Your task to perform on an android device: What's the weather today? Image 0: 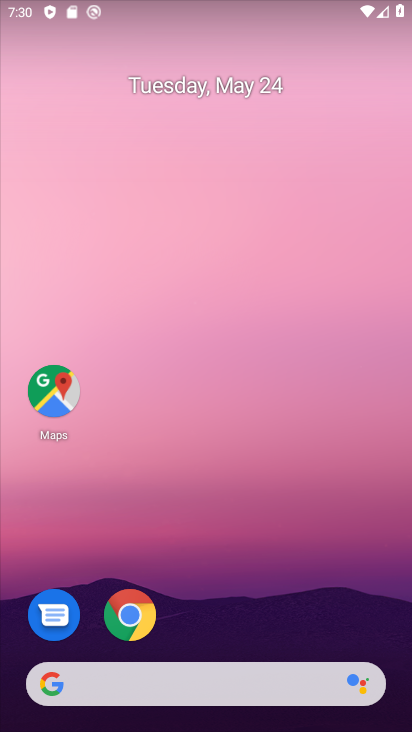
Step 0: drag from (270, 619) to (230, 274)
Your task to perform on an android device: What's the weather today? Image 1: 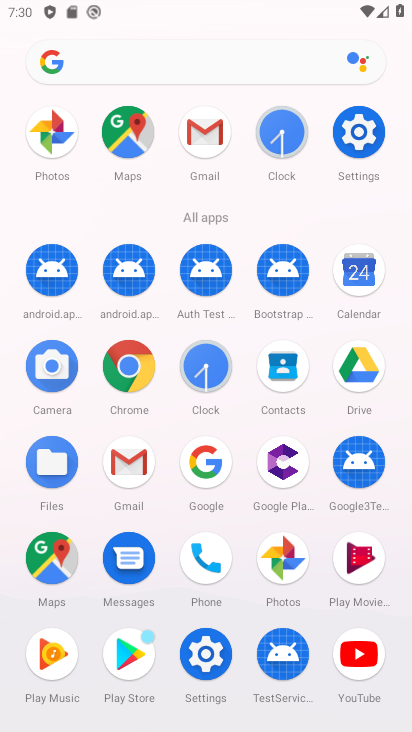
Step 1: click (127, 364)
Your task to perform on an android device: What's the weather today? Image 2: 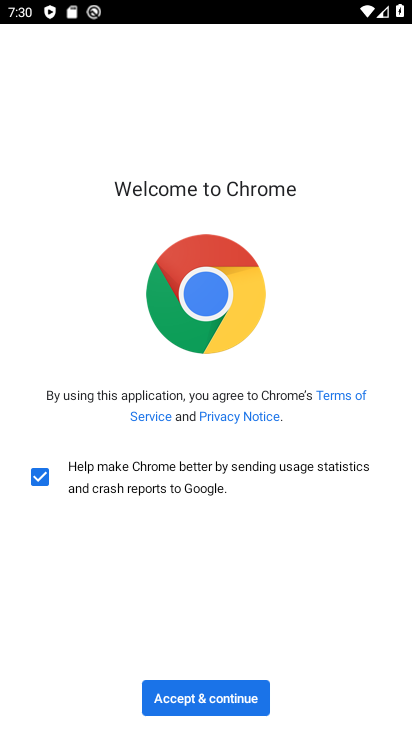
Step 2: click (207, 702)
Your task to perform on an android device: What's the weather today? Image 3: 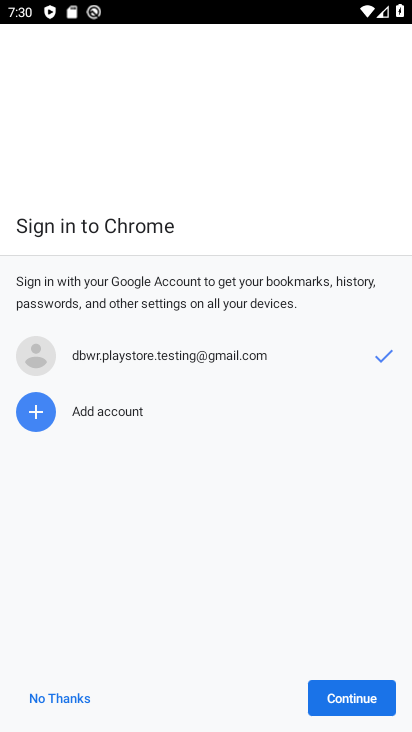
Step 3: click (330, 704)
Your task to perform on an android device: What's the weather today? Image 4: 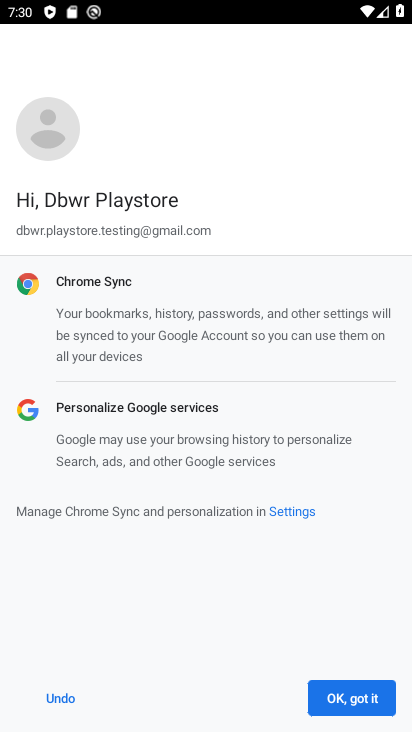
Step 4: click (330, 704)
Your task to perform on an android device: What's the weather today? Image 5: 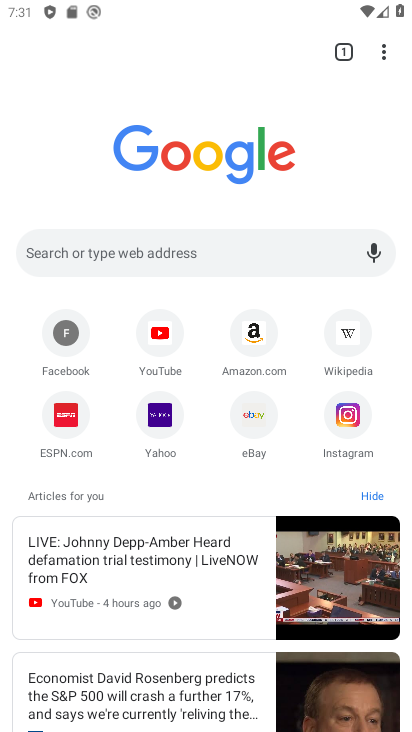
Step 5: click (307, 247)
Your task to perform on an android device: What's the weather today? Image 6: 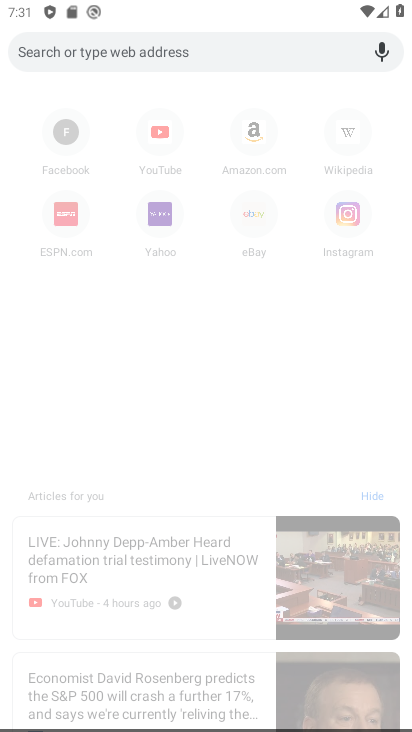
Step 6: type "What's the weather today?"
Your task to perform on an android device: What's the weather today? Image 7: 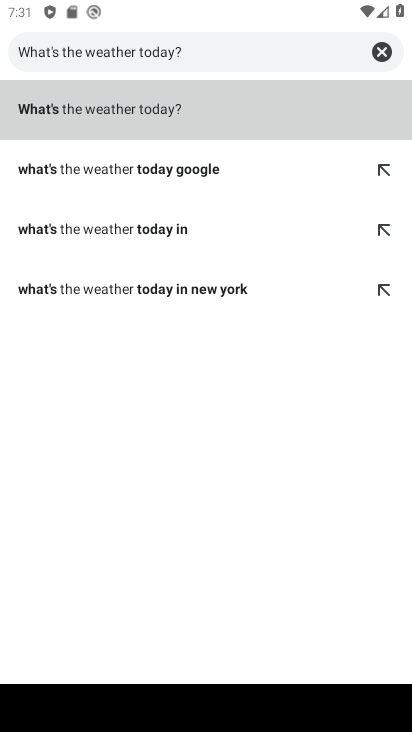
Step 7: click (266, 103)
Your task to perform on an android device: What's the weather today? Image 8: 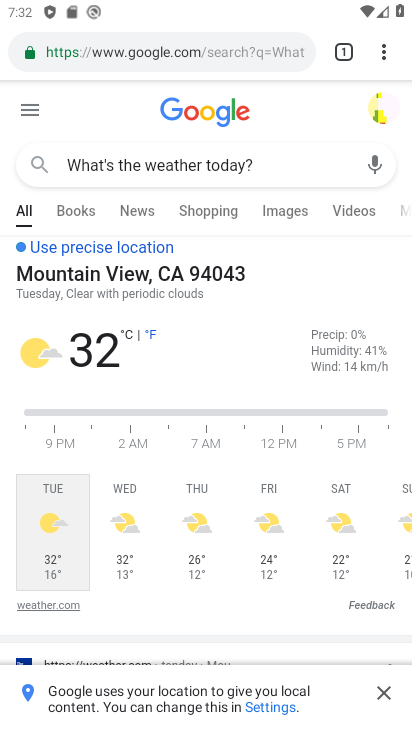
Step 8: task complete